Your task to perform on an android device: Open the Play Movies app and select the watchlist tab. Image 0: 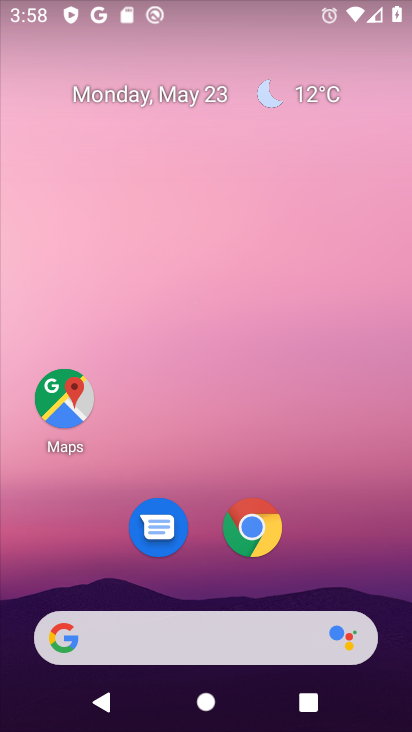
Step 0: press home button
Your task to perform on an android device: Open the Play Movies app and select the watchlist tab. Image 1: 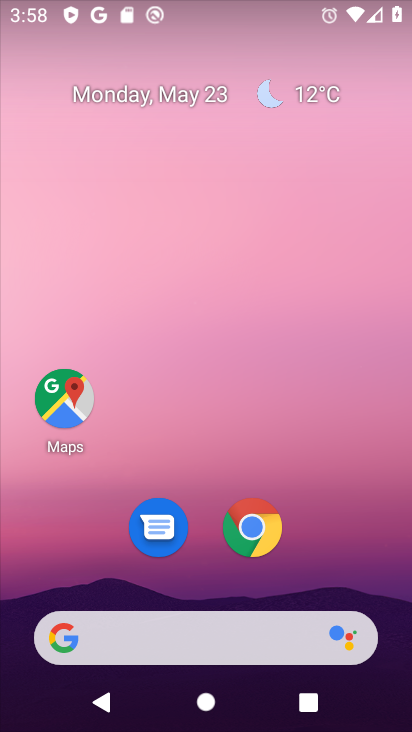
Step 1: drag from (204, 572) to (229, 75)
Your task to perform on an android device: Open the Play Movies app and select the watchlist tab. Image 2: 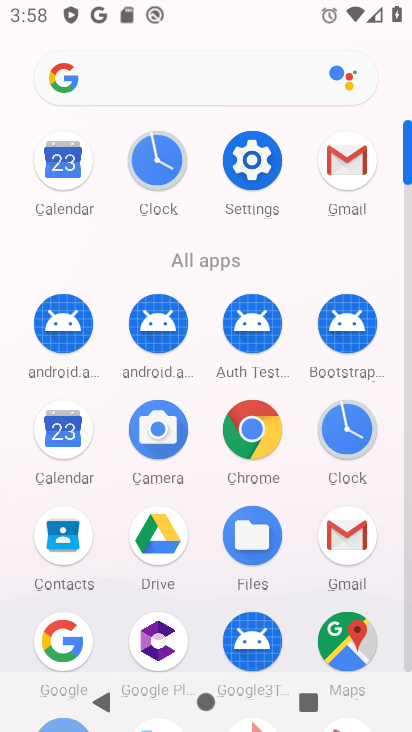
Step 2: drag from (294, 603) to (300, 236)
Your task to perform on an android device: Open the Play Movies app and select the watchlist tab. Image 3: 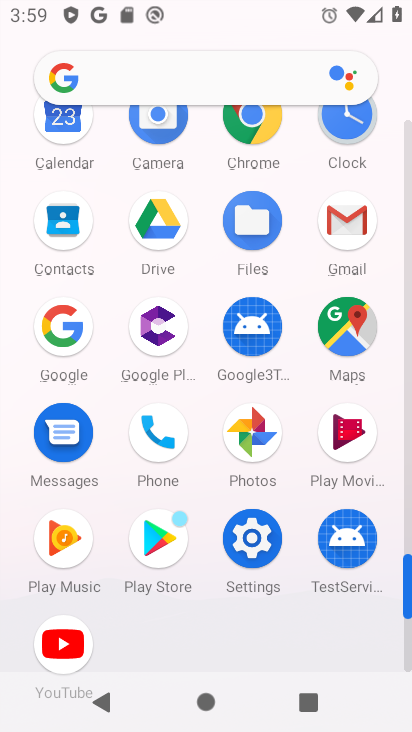
Step 3: click (345, 421)
Your task to perform on an android device: Open the Play Movies app and select the watchlist tab. Image 4: 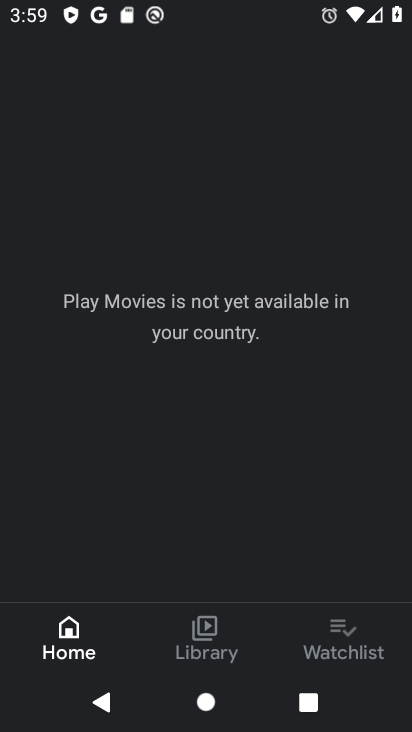
Step 4: click (336, 627)
Your task to perform on an android device: Open the Play Movies app and select the watchlist tab. Image 5: 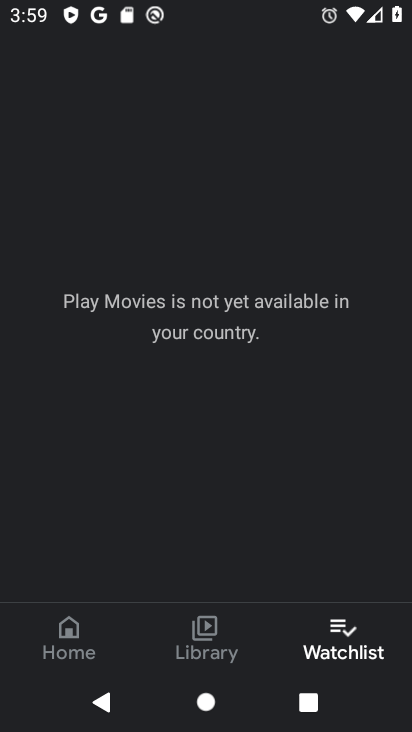
Step 5: task complete